Your task to perform on an android device: toggle priority inbox in the gmail app Image 0: 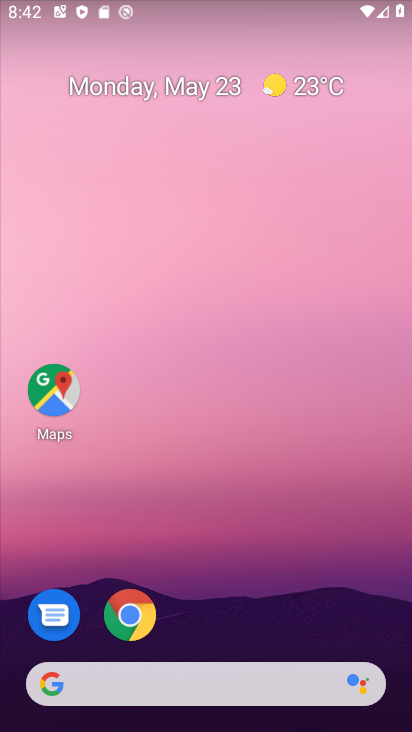
Step 0: drag from (249, 596) to (256, 42)
Your task to perform on an android device: toggle priority inbox in the gmail app Image 1: 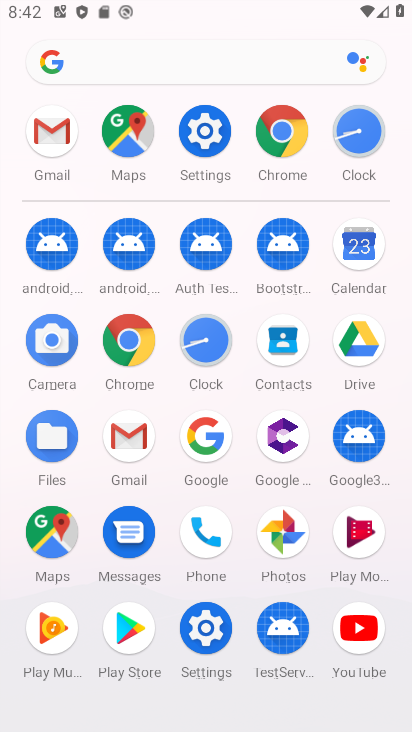
Step 1: click (51, 132)
Your task to perform on an android device: toggle priority inbox in the gmail app Image 2: 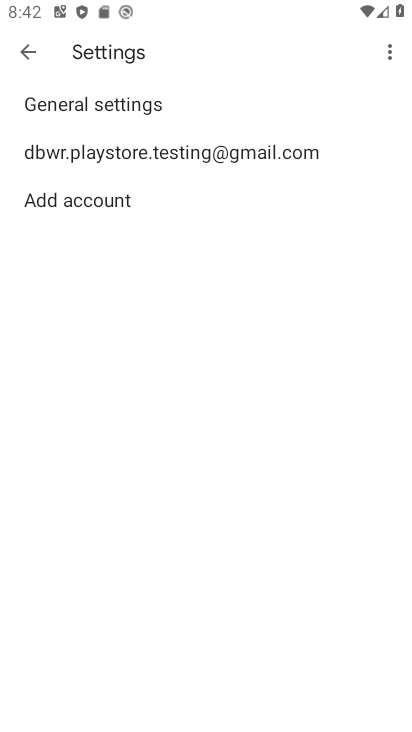
Step 2: click (57, 153)
Your task to perform on an android device: toggle priority inbox in the gmail app Image 3: 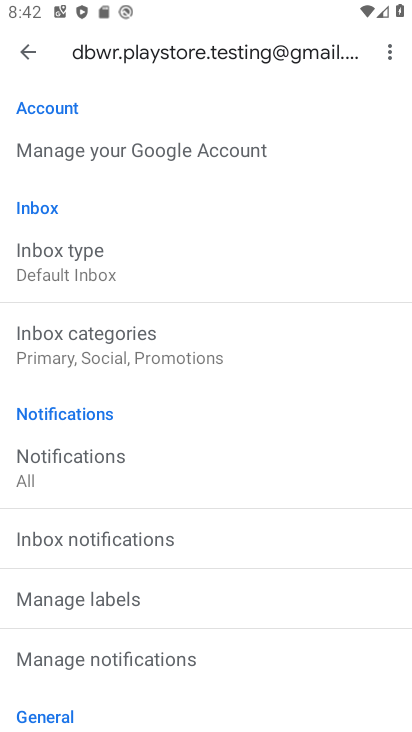
Step 3: click (69, 265)
Your task to perform on an android device: toggle priority inbox in the gmail app Image 4: 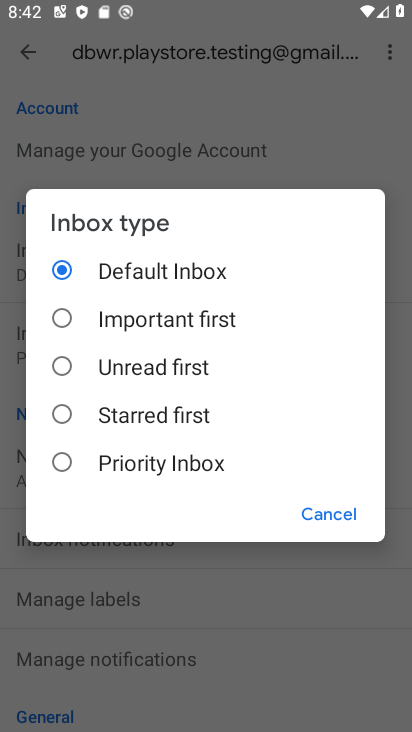
Step 4: click (63, 460)
Your task to perform on an android device: toggle priority inbox in the gmail app Image 5: 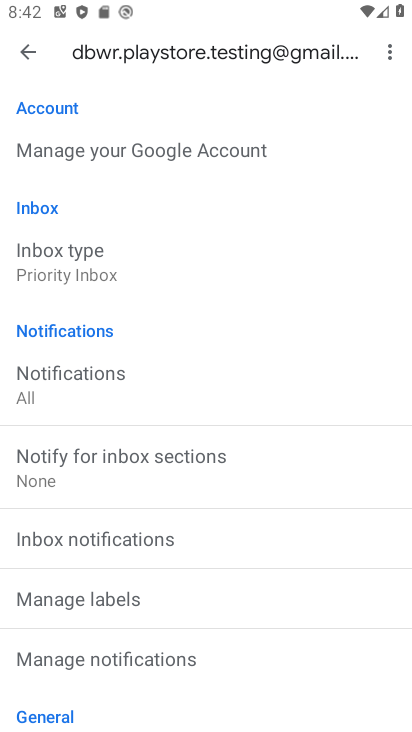
Step 5: task complete